Your task to perform on an android device: What is the recent news? Image 0: 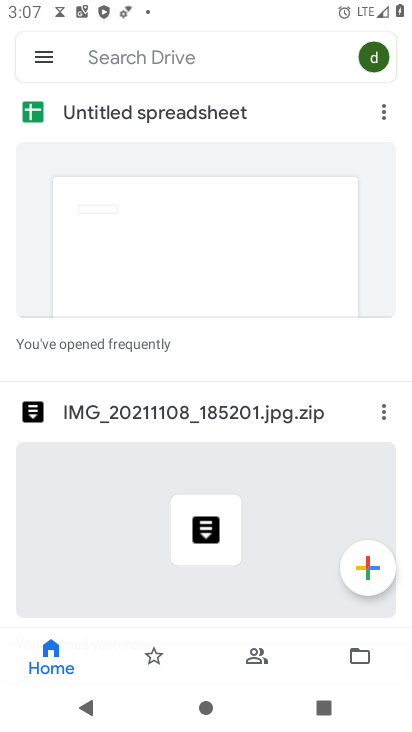
Step 0: press home button
Your task to perform on an android device: What is the recent news? Image 1: 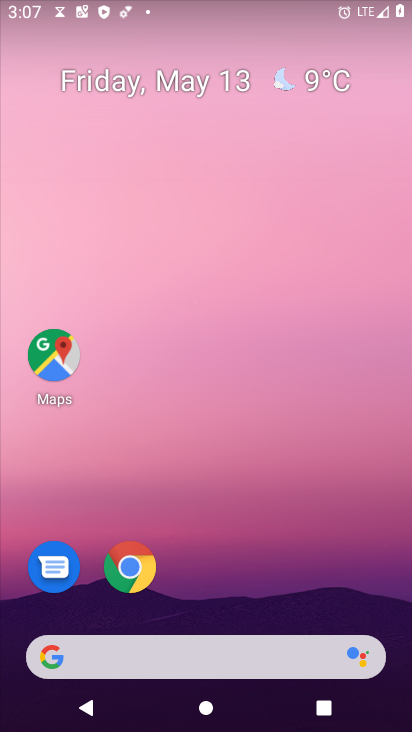
Step 1: click (110, 657)
Your task to perform on an android device: What is the recent news? Image 2: 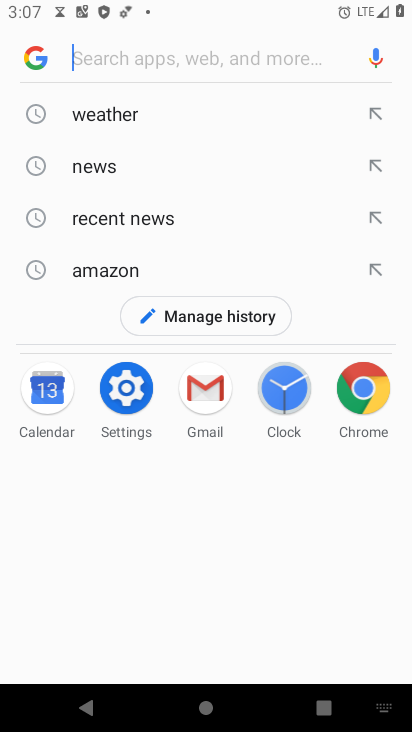
Step 2: click (126, 217)
Your task to perform on an android device: What is the recent news? Image 3: 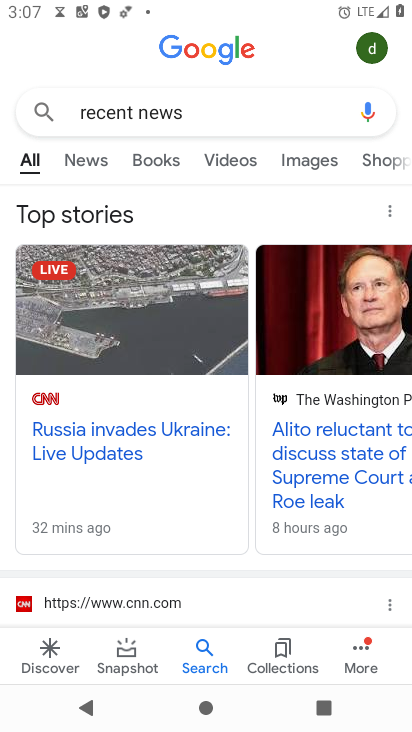
Step 3: drag from (166, 548) to (195, 213)
Your task to perform on an android device: What is the recent news? Image 4: 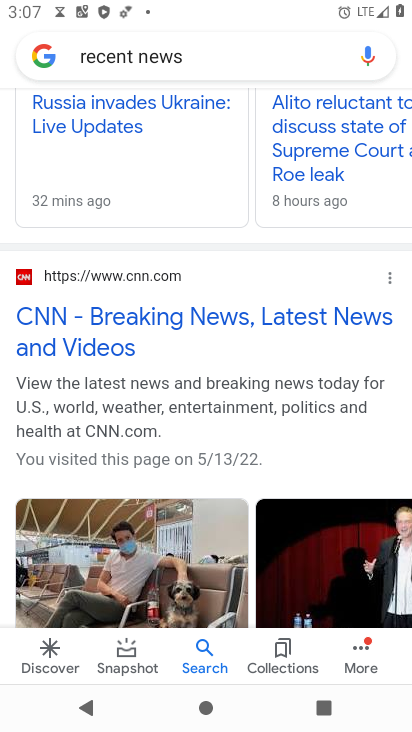
Step 4: drag from (125, 321) to (102, 486)
Your task to perform on an android device: What is the recent news? Image 5: 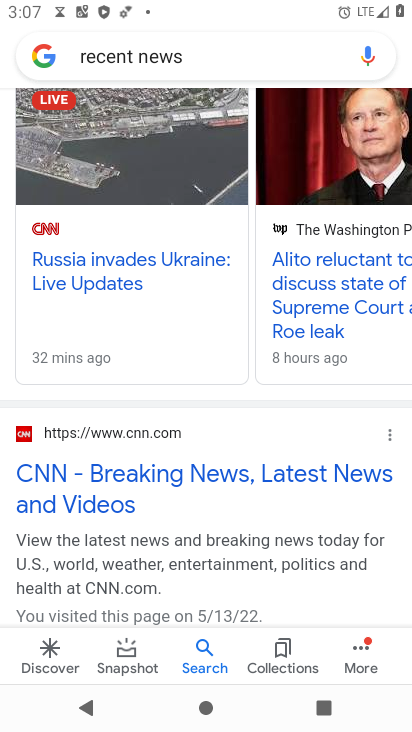
Step 5: drag from (135, 259) to (100, 562)
Your task to perform on an android device: What is the recent news? Image 6: 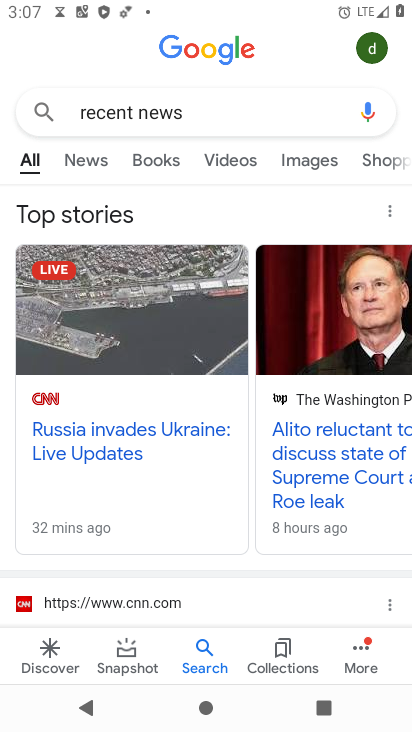
Step 6: click (99, 165)
Your task to perform on an android device: What is the recent news? Image 7: 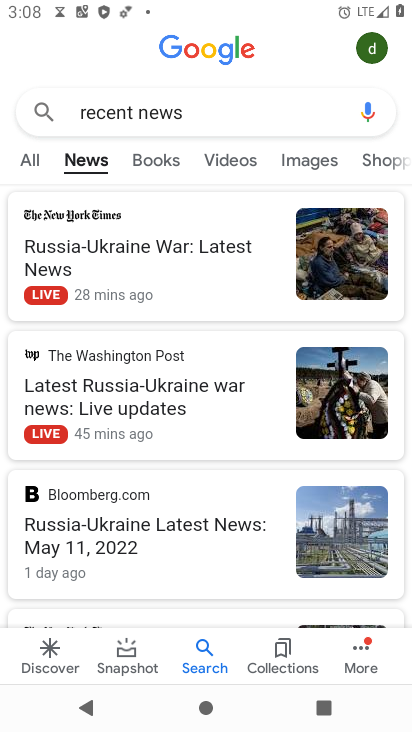
Step 7: click (120, 252)
Your task to perform on an android device: What is the recent news? Image 8: 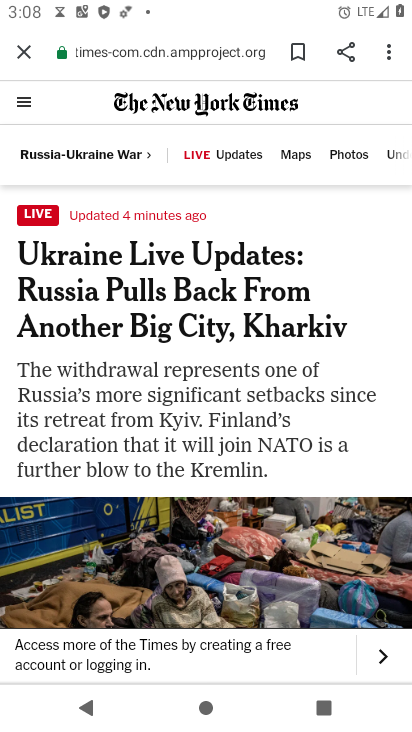
Step 8: task complete